Your task to perform on an android device: add a contact Image 0: 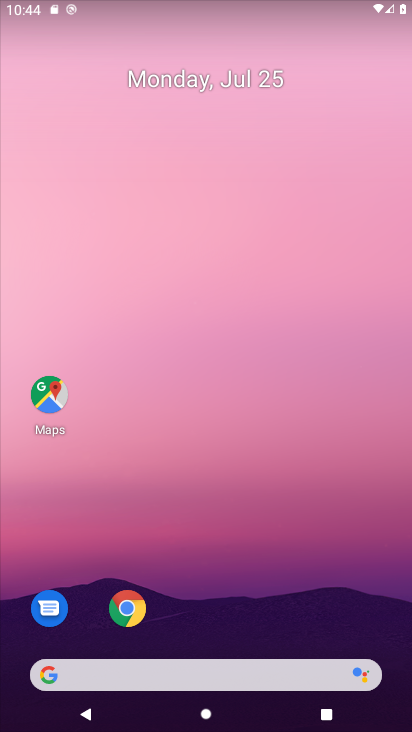
Step 0: drag from (290, 710) to (226, 160)
Your task to perform on an android device: add a contact Image 1: 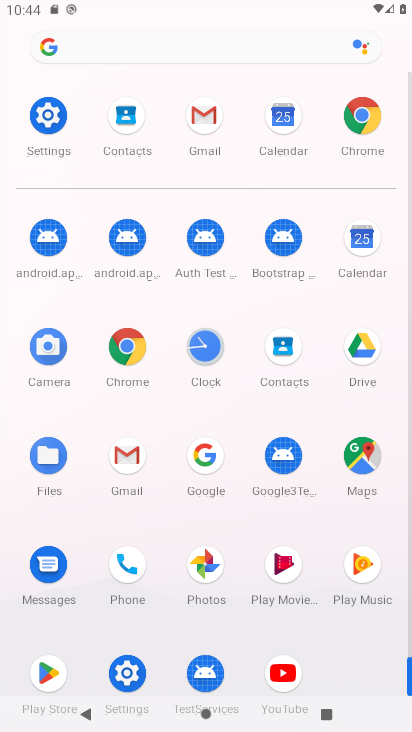
Step 1: click (275, 349)
Your task to perform on an android device: add a contact Image 2: 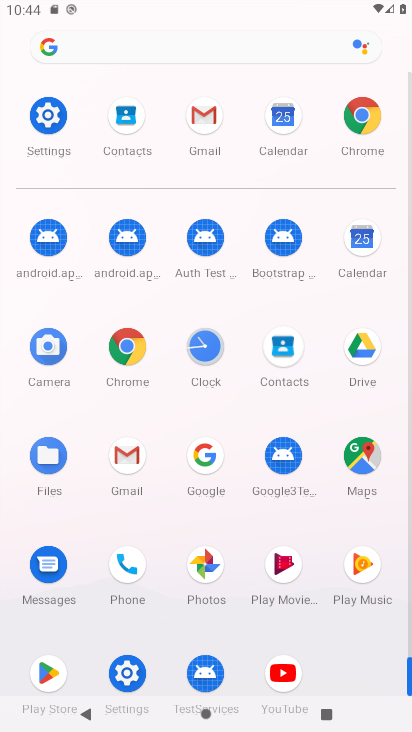
Step 2: click (277, 347)
Your task to perform on an android device: add a contact Image 3: 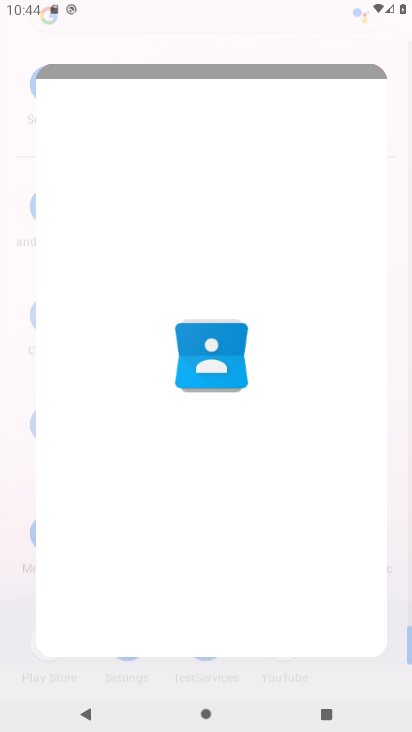
Step 3: click (279, 347)
Your task to perform on an android device: add a contact Image 4: 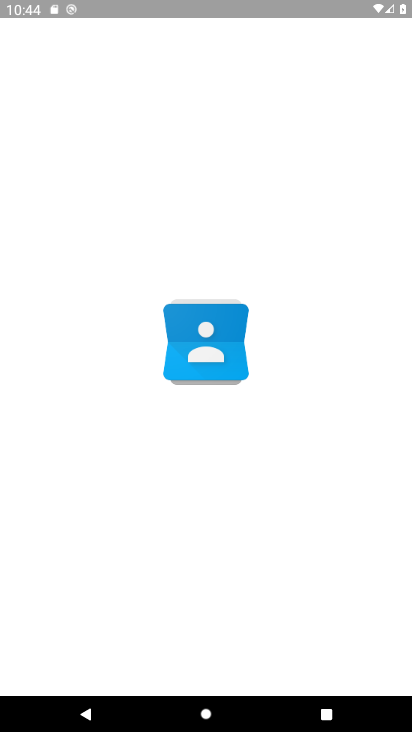
Step 4: click (279, 347)
Your task to perform on an android device: add a contact Image 5: 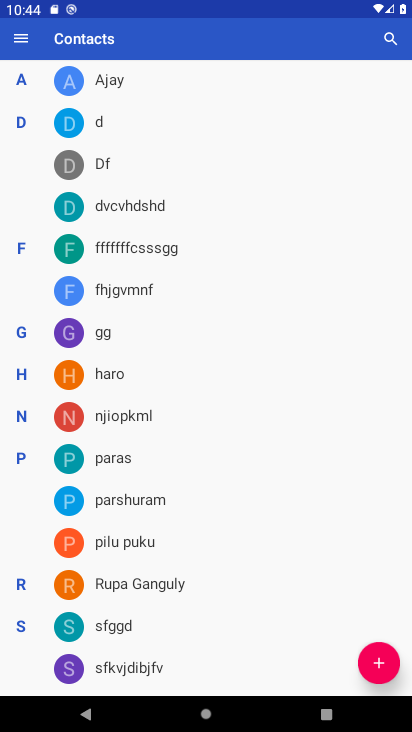
Step 5: click (379, 678)
Your task to perform on an android device: add a contact Image 6: 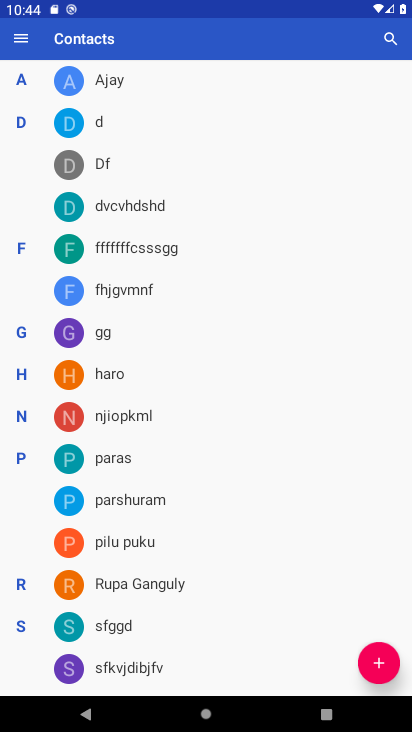
Step 6: click (380, 673)
Your task to perform on an android device: add a contact Image 7: 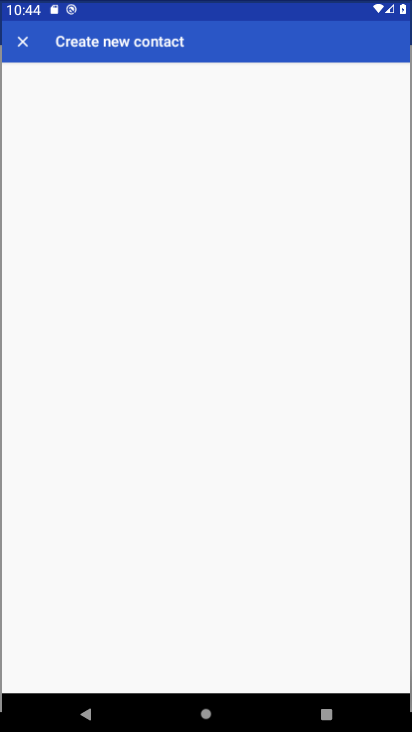
Step 7: click (380, 666)
Your task to perform on an android device: add a contact Image 8: 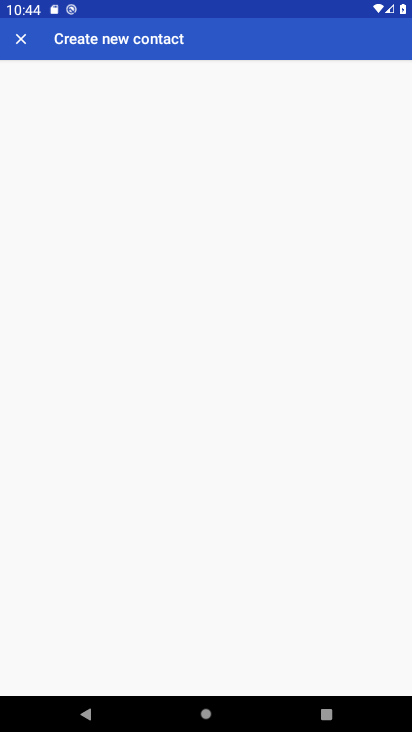
Step 8: click (380, 666)
Your task to perform on an android device: add a contact Image 9: 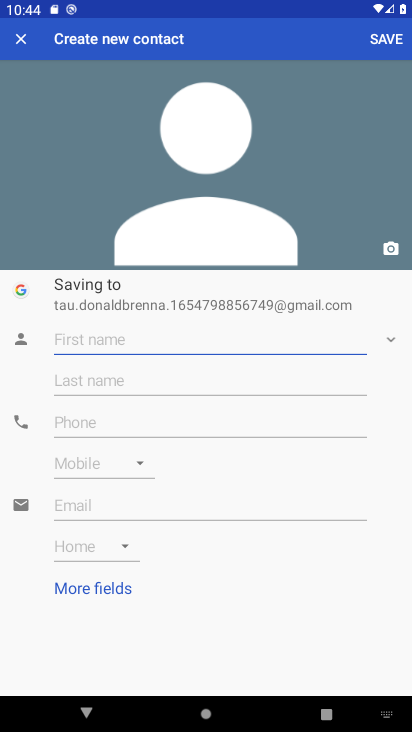
Step 9: type " ,m k mk l. "
Your task to perform on an android device: add a contact Image 10: 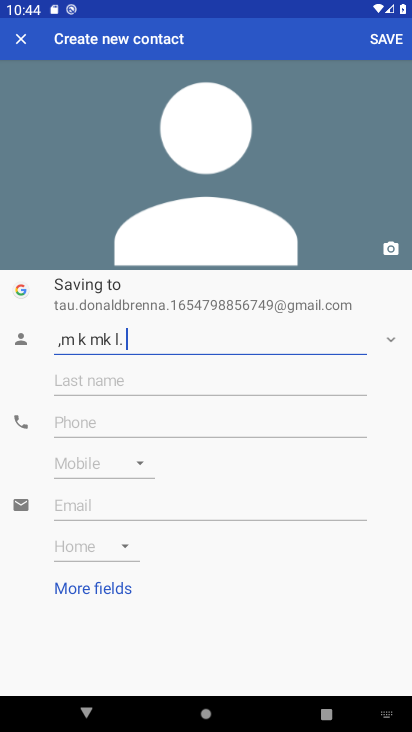
Step 10: click (79, 426)
Your task to perform on an android device: add a contact Image 11: 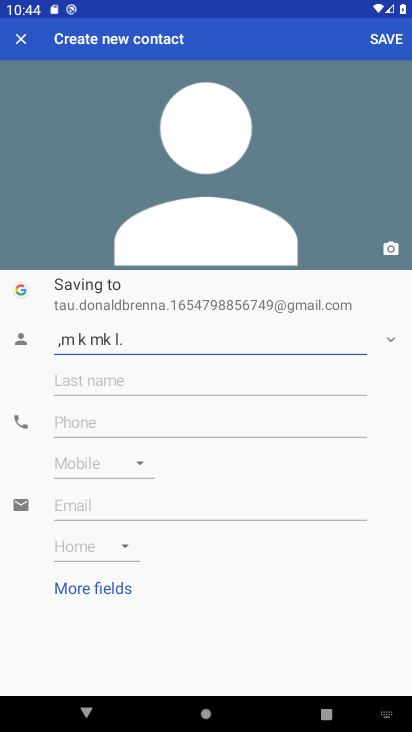
Step 11: click (79, 426)
Your task to perform on an android device: add a contact Image 12: 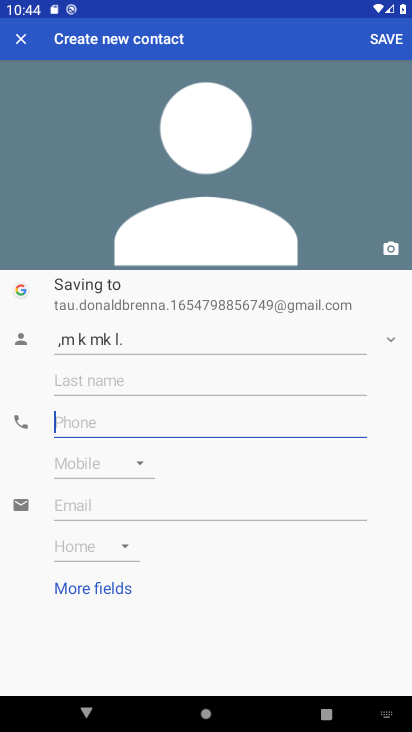
Step 12: click (79, 426)
Your task to perform on an android device: add a contact Image 13: 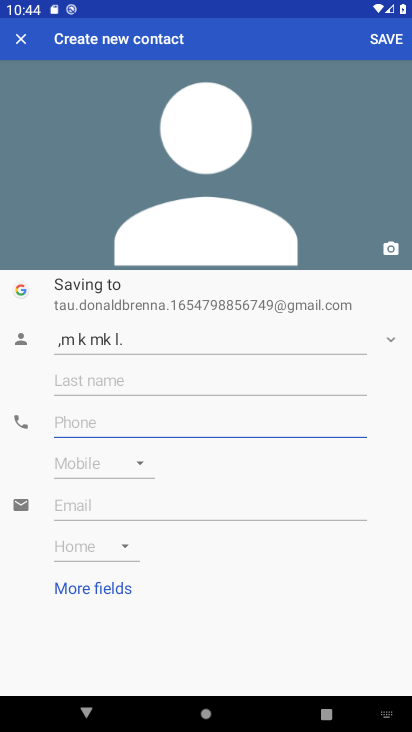
Step 13: click (79, 426)
Your task to perform on an android device: add a contact Image 14: 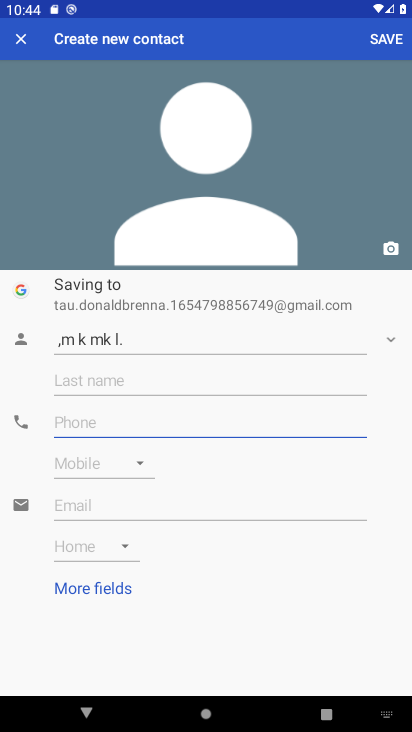
Step 14: type "872782798728989"
Your task to perform on an android device: add a contact Image 15: 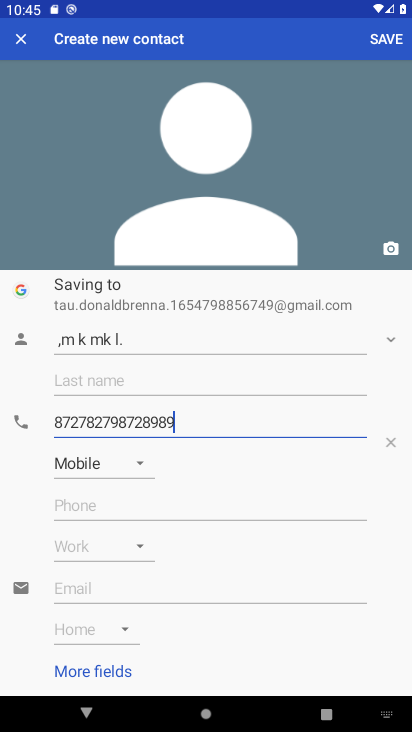
Step 15: click (384, 45)
Your task to perform on an android device: add a contact Image 16: 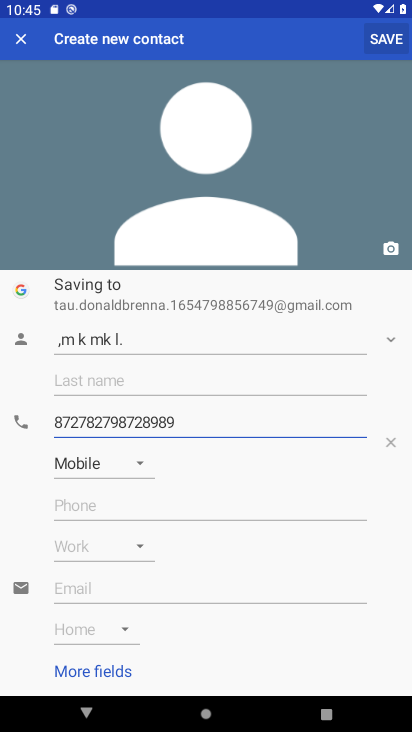
Step 16: click (379, 37)
Your task to perform on an android device: add a contact Image 17: 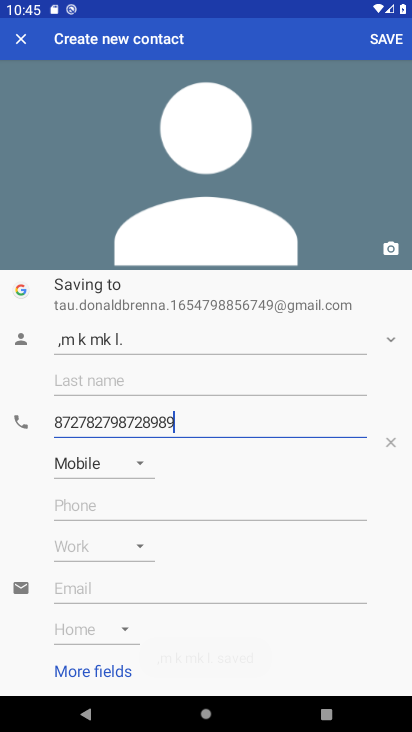
Step 17: click (381, 37)
Your task to perform on an android device: add a contact Image 18: 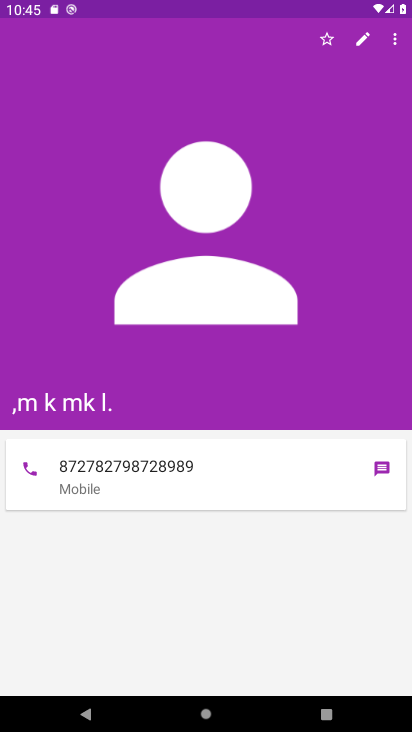
Step 18: task complete